Your task to perform on an android device: open sync settings in chrome Image 0: 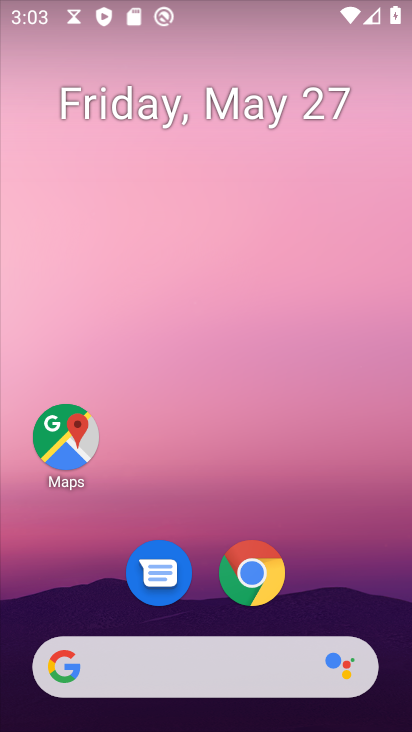
Step 0: click (249, 555)
Your task to perform on an android device: open sync settings in chrome Image 1: 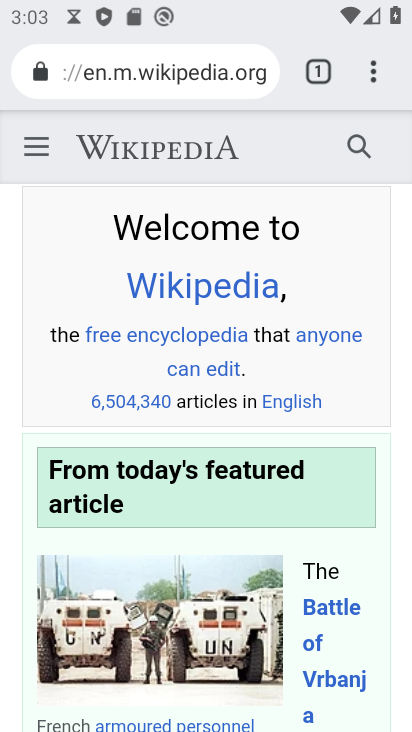
Step 1: click (366, 75)
Your task to perform on an android device: open sync settings in chrome Image 2: 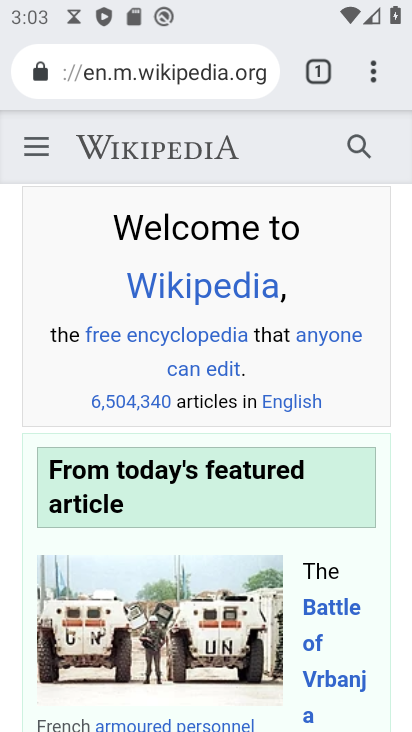
Step 2: click (366, 78)
Your task to perform on an android device: open sync settings in chrome Image 3: 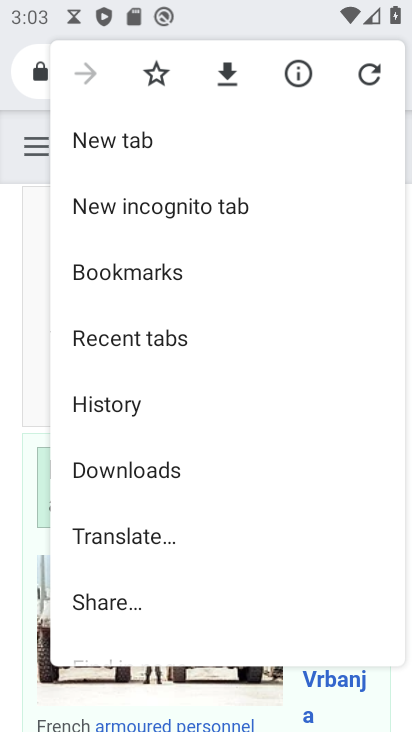
Step 3: drag from (168, 557) to (177, 204)
Your task to perform on an android device: open sync settings in chrome Image 4: 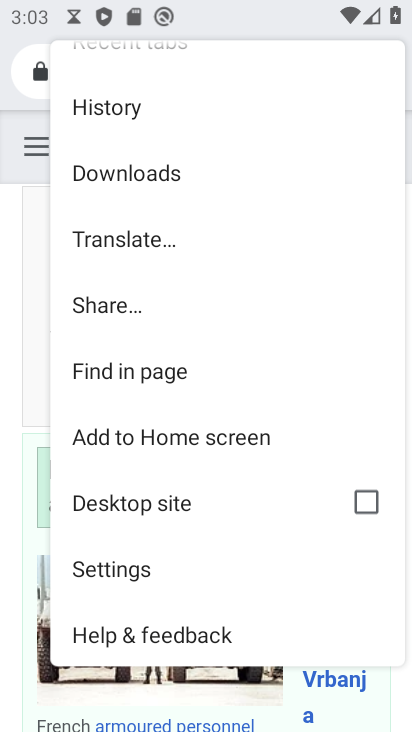
Step 4: click (186, 562)
Your task to perform on an android device: open sync settings in chrome Image 5: 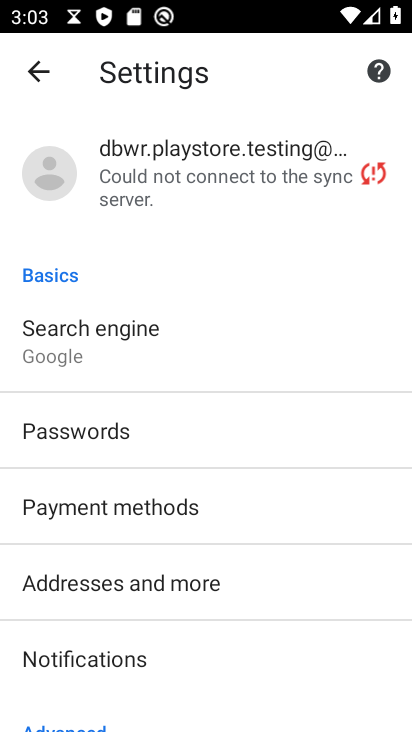
Step 5: drag from (156, 656) to (150, 622)
Your task to perform on an android device: open sync settings in chrome Image 6: 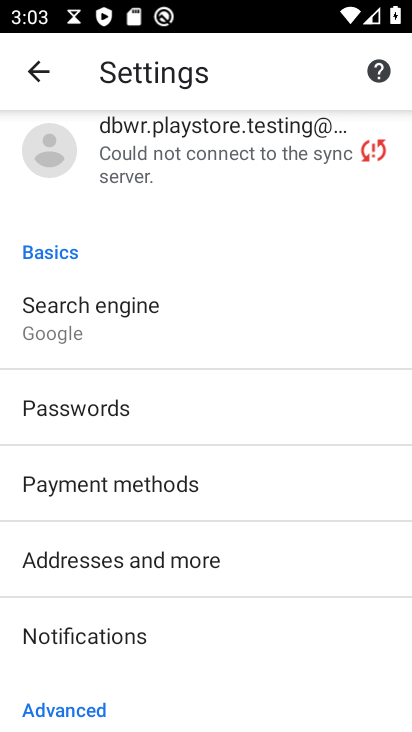
Step 6: click (242, 168)
Your task to perform on an android device: open sync settings in chrome Image 7: 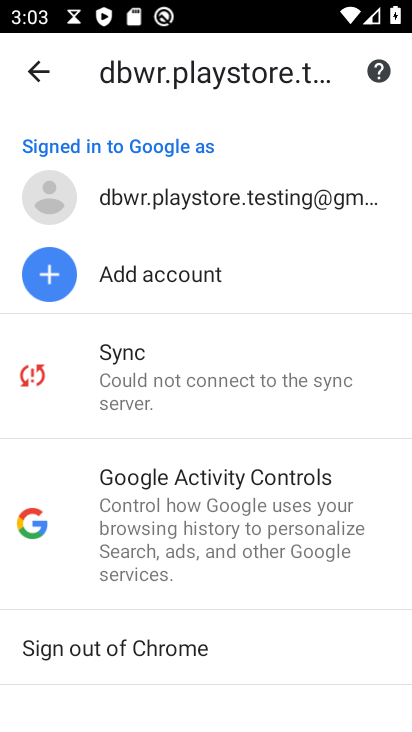
Step 7: click (169, 390)
Your task to perform on an android device: open sync settings in chrome Image 8: 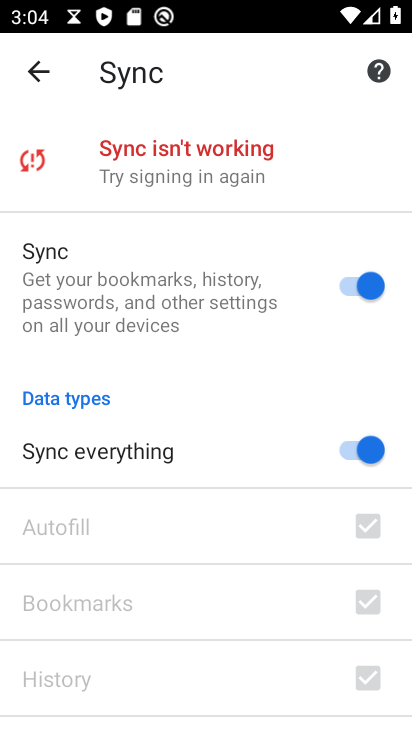
Step 8: task complete